Your task to perform on an android device: change the clock style Image 0: 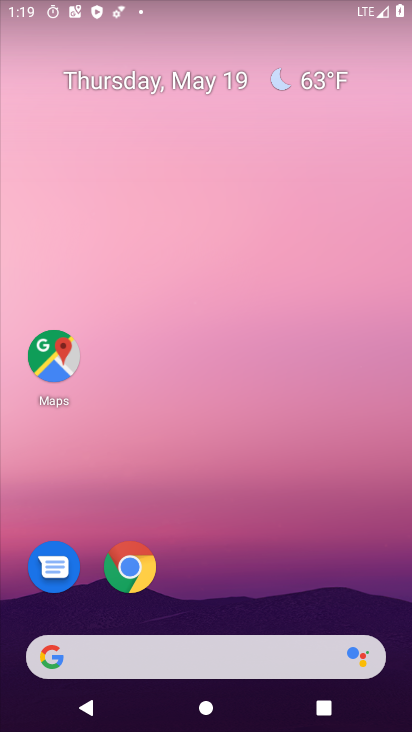
Step 0: press home button
Your task to perform on an android device: change the clock style Image 1: 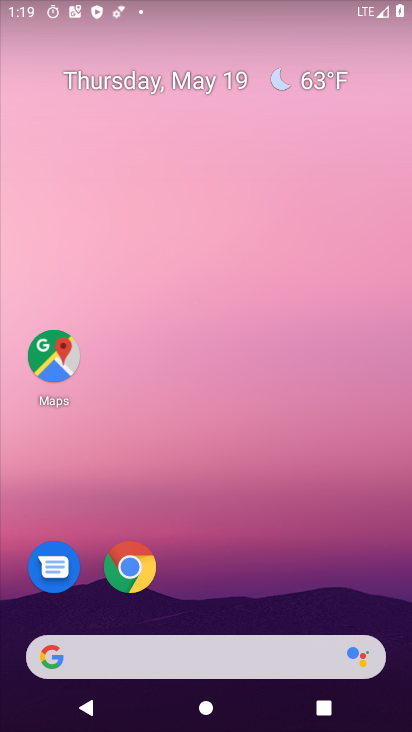
Step 1: drag from (176, 663) to (321, 263)
Your task to perform on an android device: change the clock style Image 2: 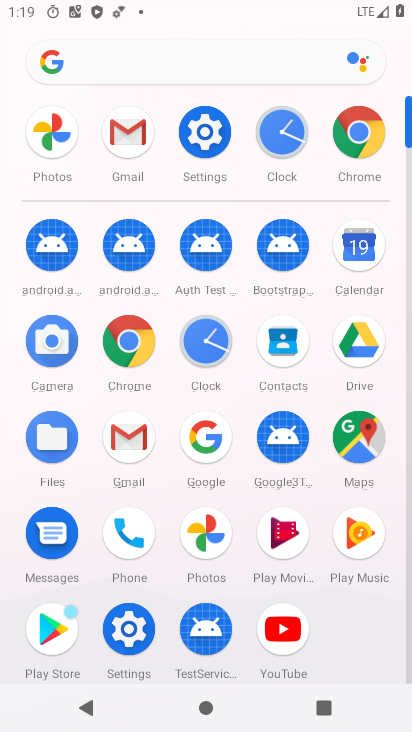
Step 2: click (281, 129)
Your task to perform on an android device: change the clock style Image 3: 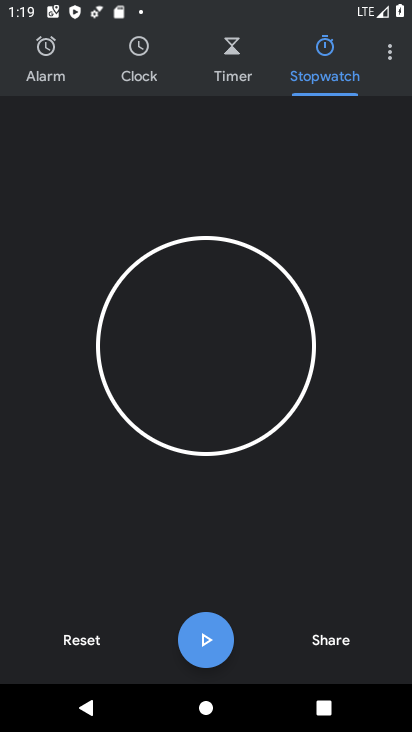
Step 3: click (386, 58)
Your task to perform on an android device: change the clock style Image 4: 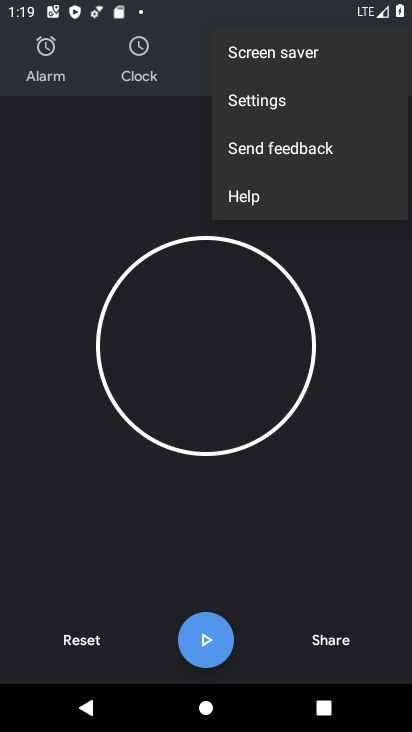
Step 4: click (283, 94)
Your task to perform on an android device: change the clock style Image 5: 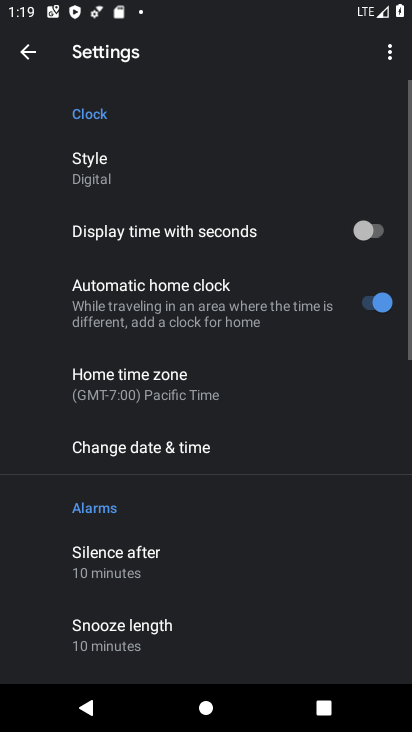
Step 5: click (111, 175)
Your task to perform on an android device: change the clock style Image 6: 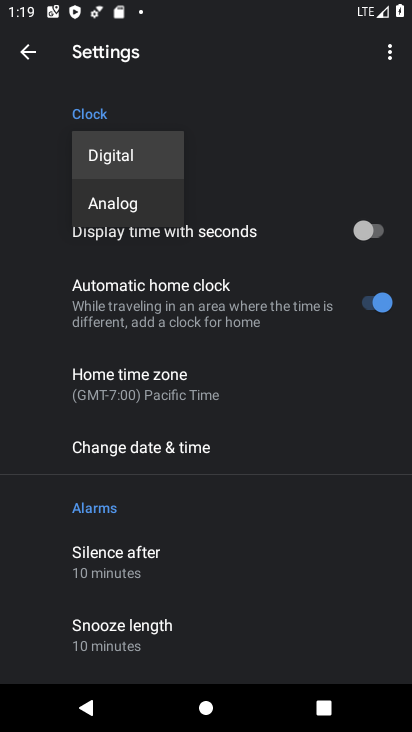
Step 6: click (106, 207)
Your task to perform on an android device: change the clock style Image 7: 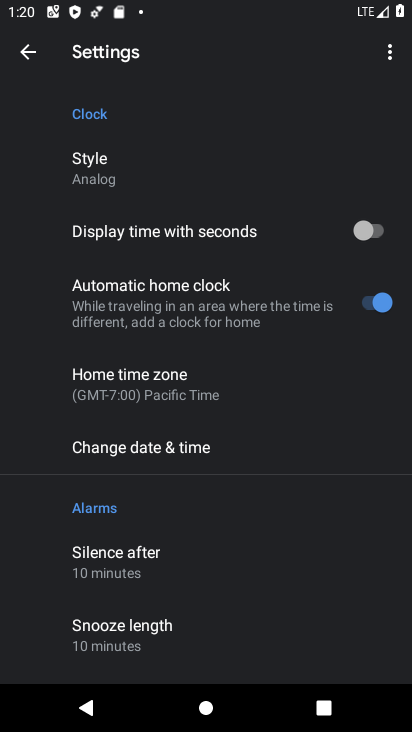
Step 7: task complete